Your task to perform on an android device: Open ESPN.com Image 0: 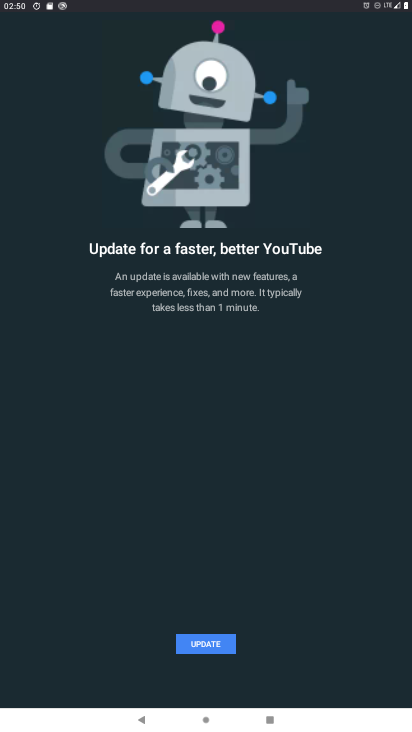
Step 0: press home button
Your task to perform on an android device: Open ESPN.com Image 1: 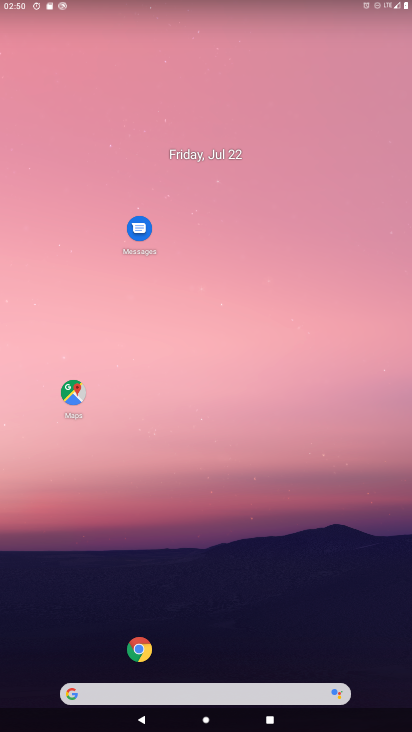
Step 1: click (90, 691)
Your task to perform on an android device: Open ESPN.com Image 2: 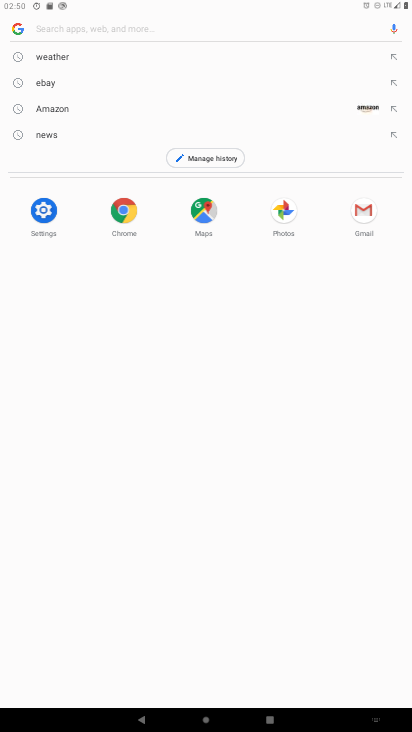
Step 2: type "ESPN.com"
Your task to perform on an android device: Open ESPN.com Image 3: 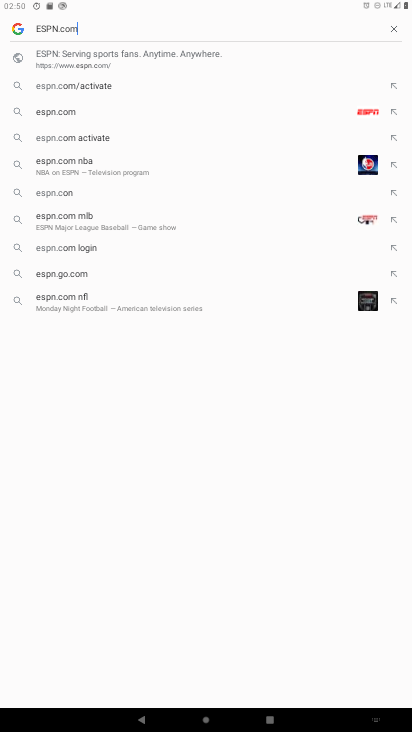
Step 3: type ""
Your task to perform on an android device: Open ESPN.com Image 4: 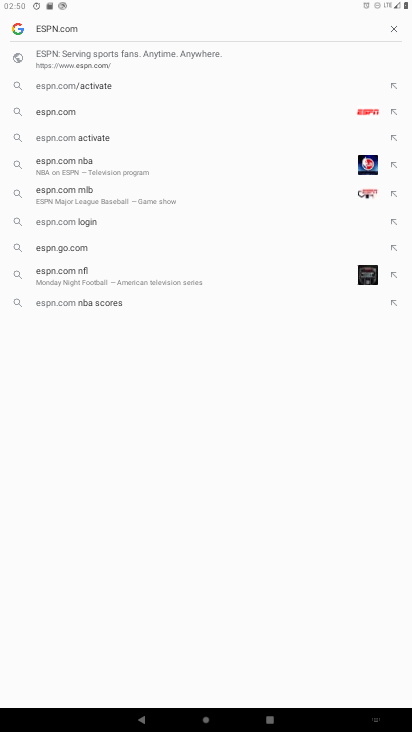
Step 4: click (59, 60)
Your task to perform on an android device: Open ESPN.com Image 5: 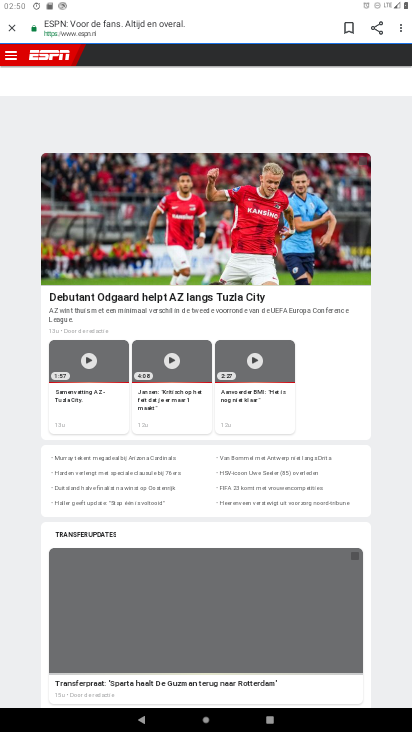
Step 5: task complete